Your task to perform on an android device: Add "jbl flip 4" to the cart on newegg, then select checkout. Image 0: 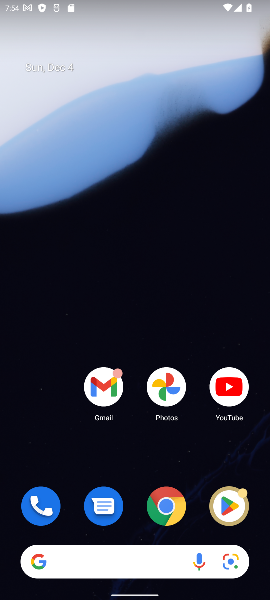
Step 0: click (169, 520)
Your task to perform on an android device: Add "jbl flip 4" to the cart on newegg, then select checkout. Image 1: 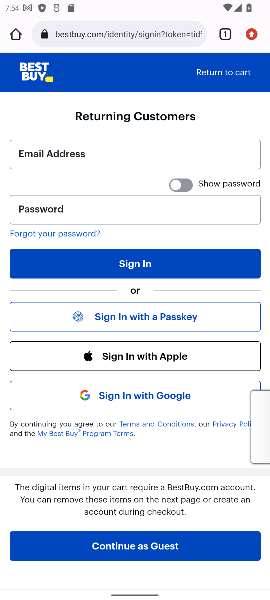
Step 1: click (124, 29)
Your task to perform on an android device: Add "jbl flip 4" to the cart on newegg, then select checkout. Image 2: 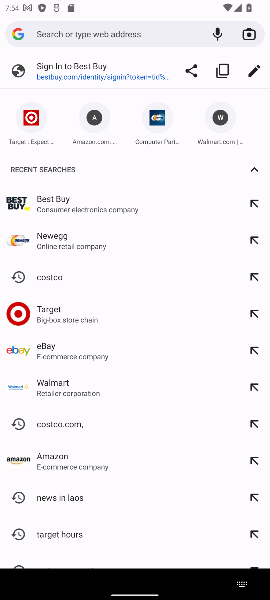
Step 2: click (89, 253)
Your task to perform on an android device: Add "jbl flip 4" to the cart on newegg, then select checkout. Image 3: 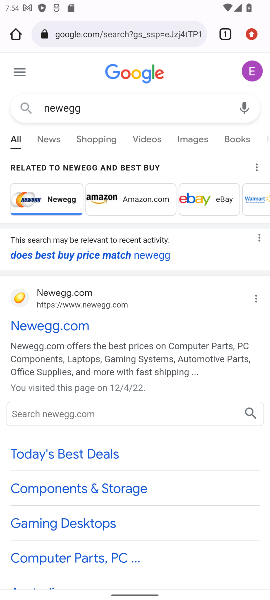
Step 3: click (45, 316)
Your task to perform on an android device: Add "jbl flip 4" to the cart on newegg, then select checkout. Image 4: 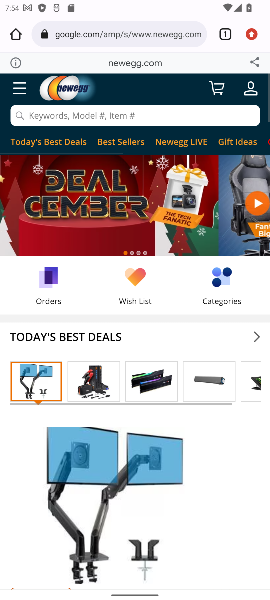
Step 4: click (111, 115)
Your task to perform on an android device: Add "jbl flip 4" to the cart on newegg, then select checkout. Image 5: 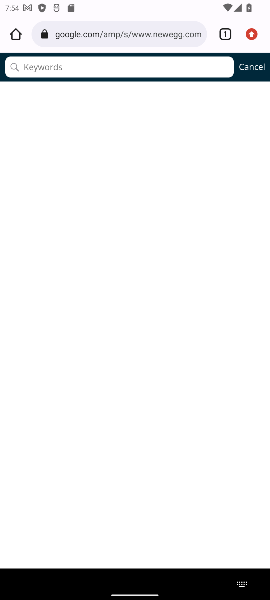
Step 5: type "jbl flip 4"
Your task to perform on an android device: Add "jbl flip 4" to the cart on newegg, then select checkout. Image 6: 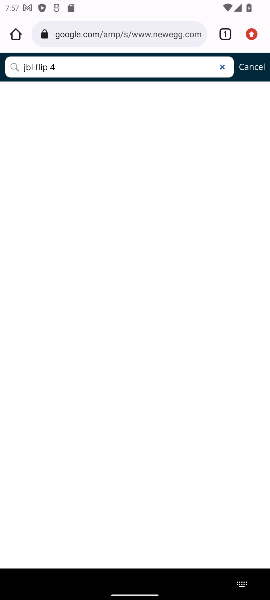
Step 6: task complete